Your task to perform on an android device: turn on improve location accuracy Image 0: 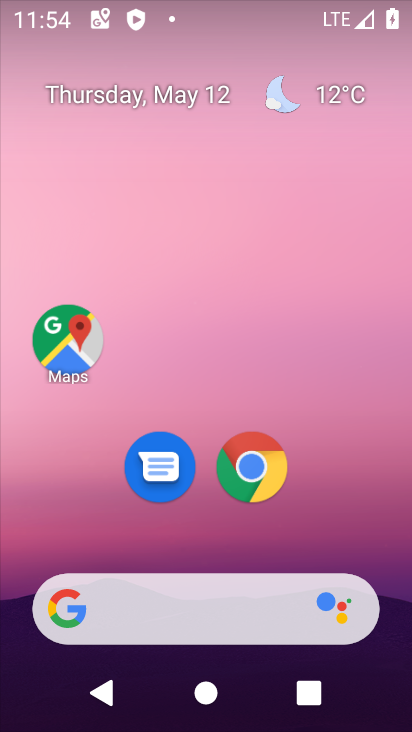
Step 0: drag from (348, 542) to (194, 10)
Your task to perform on an android device: turn on improve location accuracy Image 1: 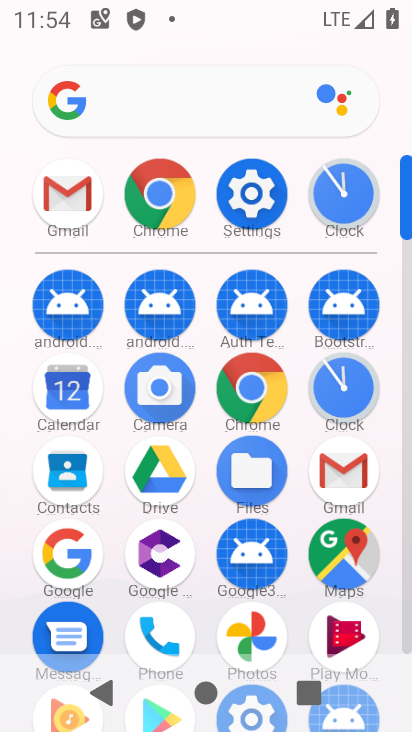
Step 1: drag from (23, 584) to (16, 201)
Your task to perform on an android device: turn on improve location accuracy Image 2: 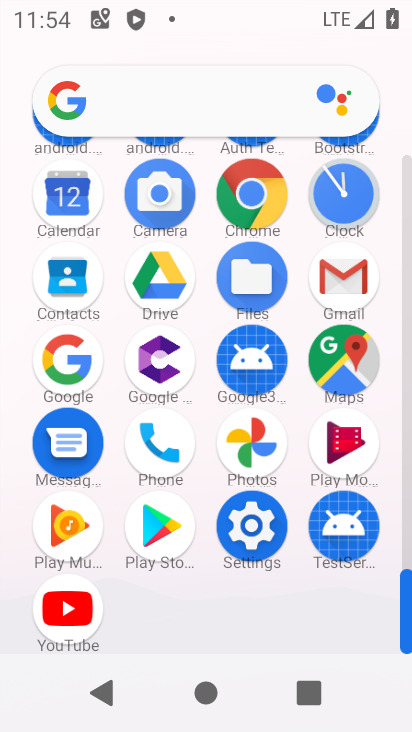
Step 2: click (247, 523)
Your task to perform on an android device: turn on improve location accuracy Image 3: 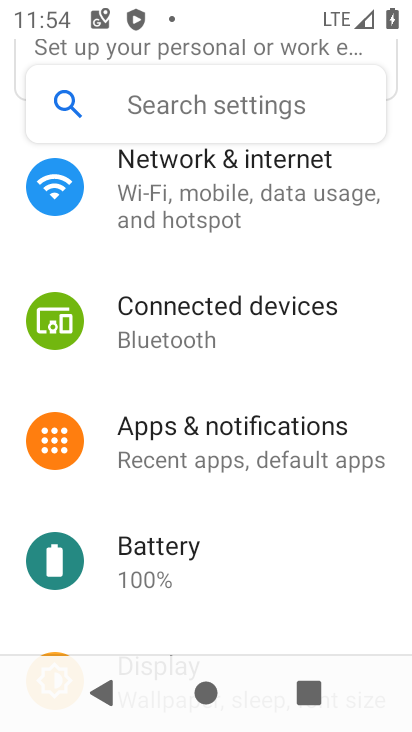
Step 3: drag from (258, 604) to (299, 282)
Your task to perform on an android device: turn on improve location accuracy Image 4: 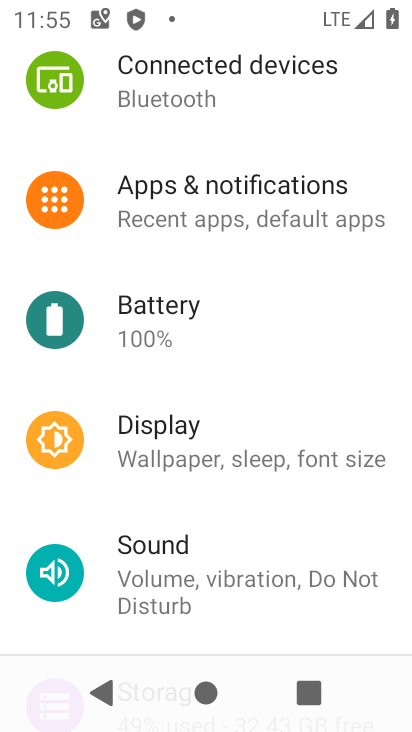
Step 4: drag from (195, 169) to (222, 501)
Your task to perform on an android device: turn on improve location accuracy Image 5: 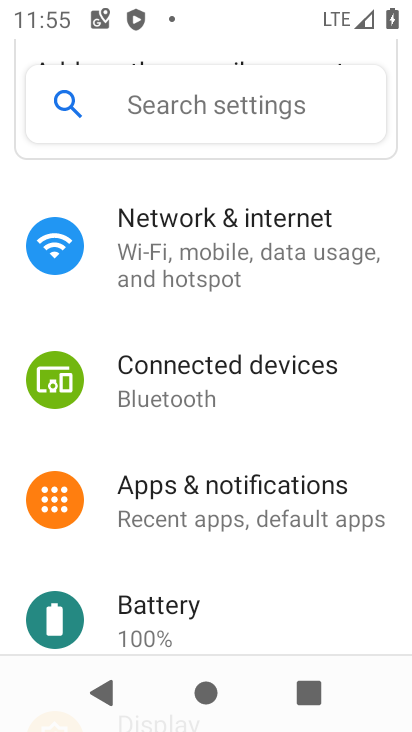
Step 5: drag from (238, 248) to (247, 557)
Your task to perform on an android device: turn on improve location accuracy Image 6: 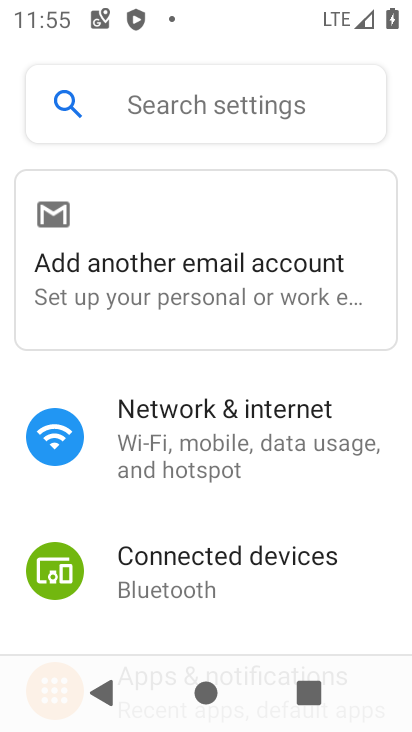
Step 6: drag from (271, 580) to (281, 316)
Your task to perform on an android device: turn on improve location accuracy Image 7: 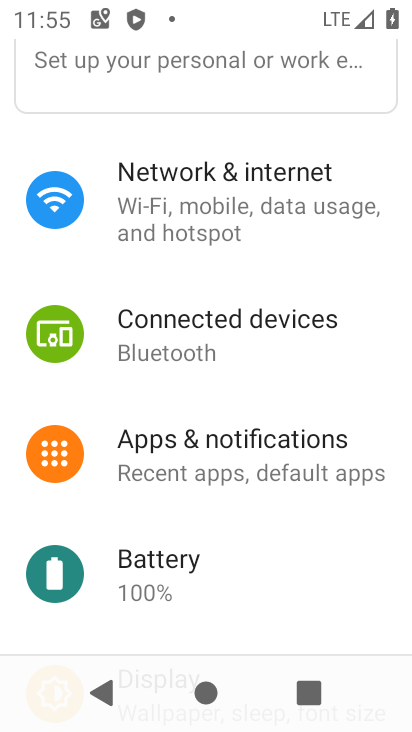
Step 7: drag from (263, 540) to (260, 253)
Your task to perform on an android device: turn on improve location accuracy Image 8: 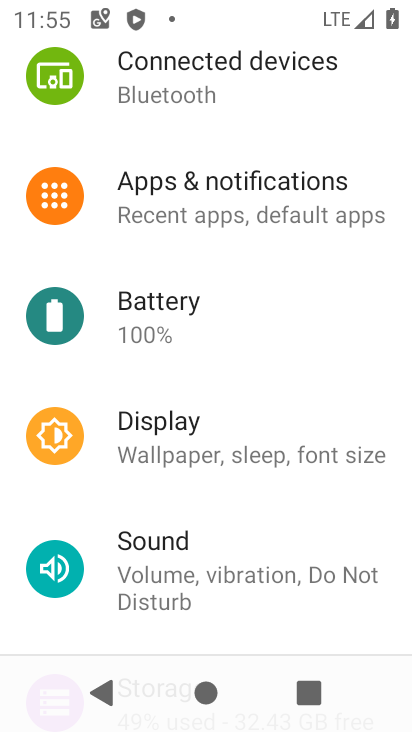
Step 8: drag from (283, 480) to (301, 169)
Your task to perform on an android device: turn on improve location accuracy Image 9: 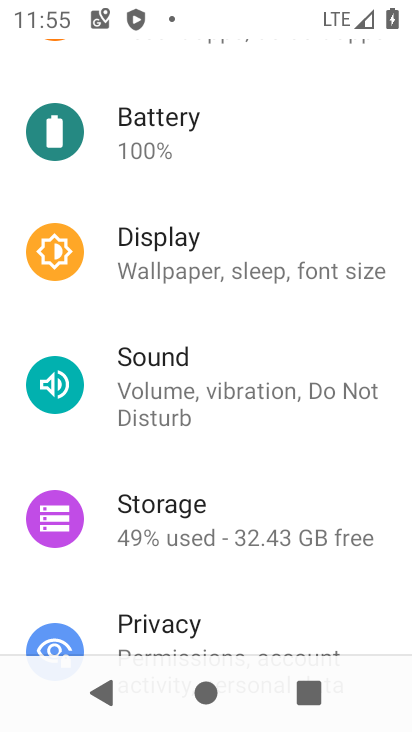
Step 9: drag from (239, 531) to (239, 132)
Your task to perform on an android device: turn on improve location accuracy Image 10: 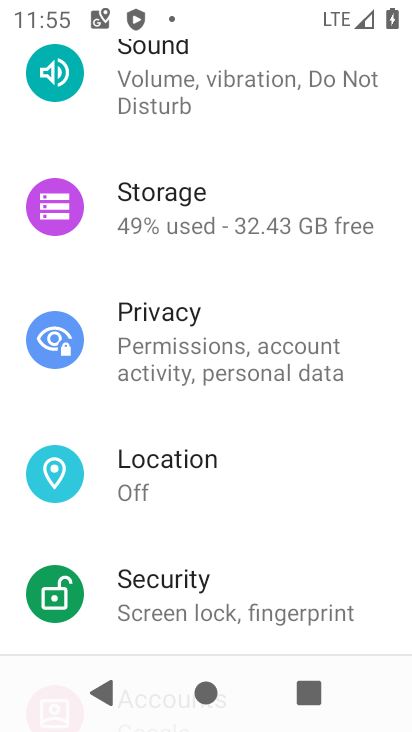
Step 10: click (204, 474)
Your task to perform on an android device: turn on improve location accuracy Image 11: 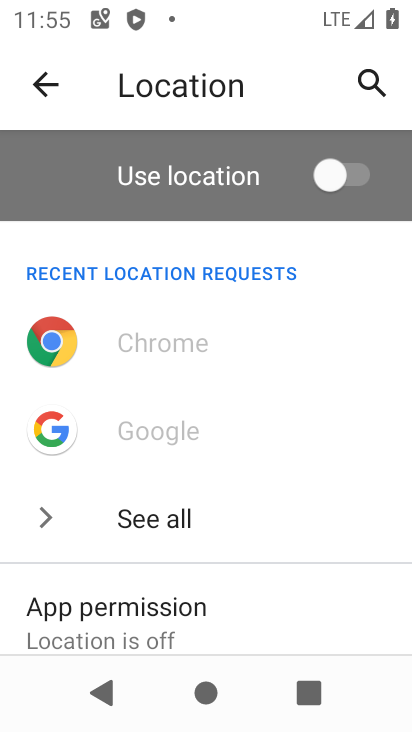
Step 11: click (328, 141)
Your task to perform on an android device: turn on improve location accuracy Image 12: 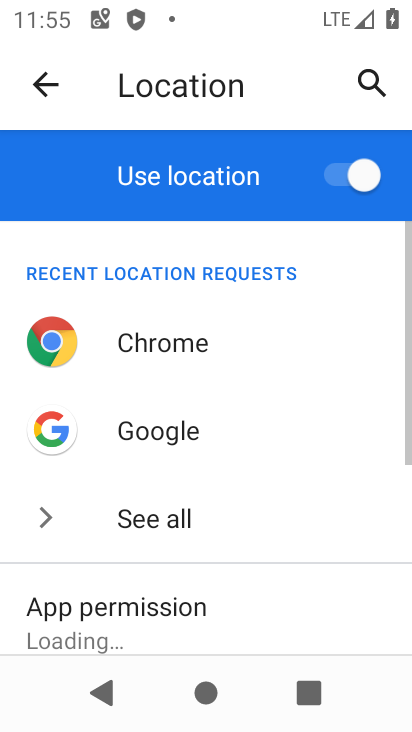
Step 12: click (328, 159)
Your task to perform on an android device: turn on improve location accuracy Image 13: 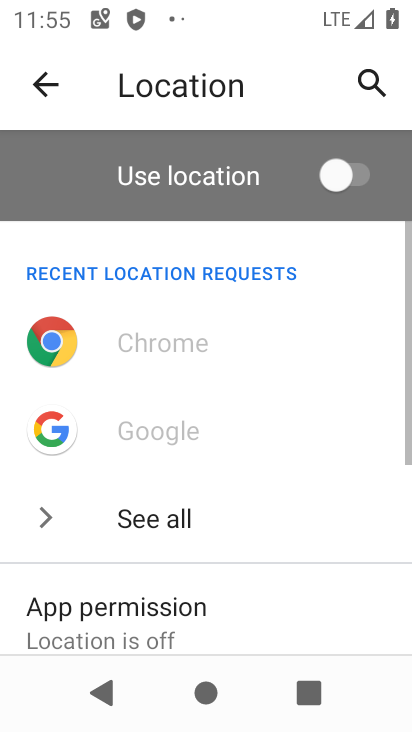
Step 13: drag from (246, 594) to (257, 196)
Your task to perform on an android device: turn on improve location accuracy Image 14: 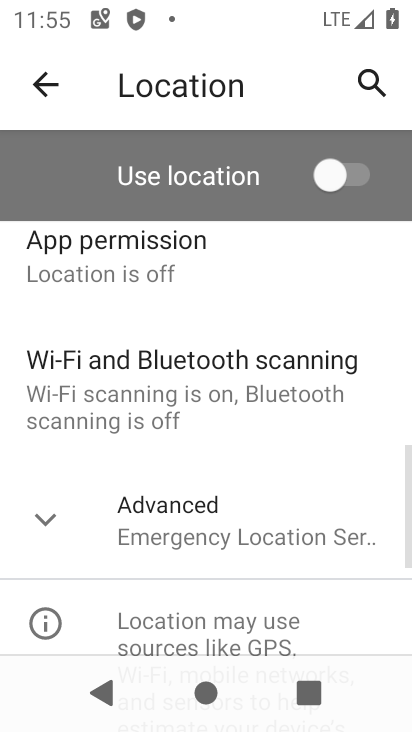
Step 14: click (187, 553)
Your task to perform on an android device: turn on improve location accuracy Image 15: 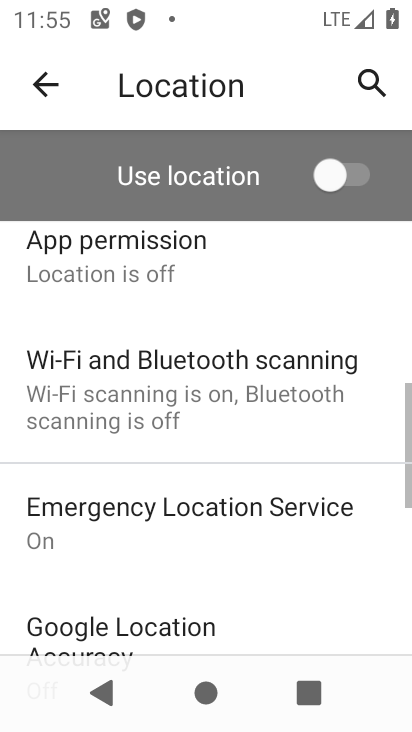
Step 15: drag from (280, 579) to (275, 275)
Your task to perform on an android device: turn on improve location accuracy Image 16: 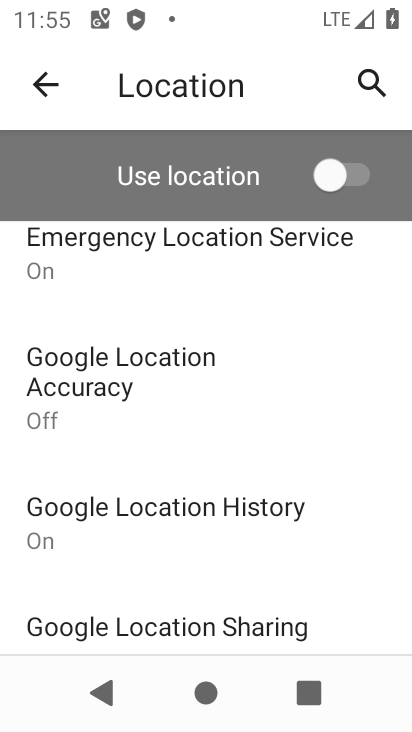
Step 16: click (173, 389)
Your task to perform on an android device: turn on improve location accuracy Image 17: 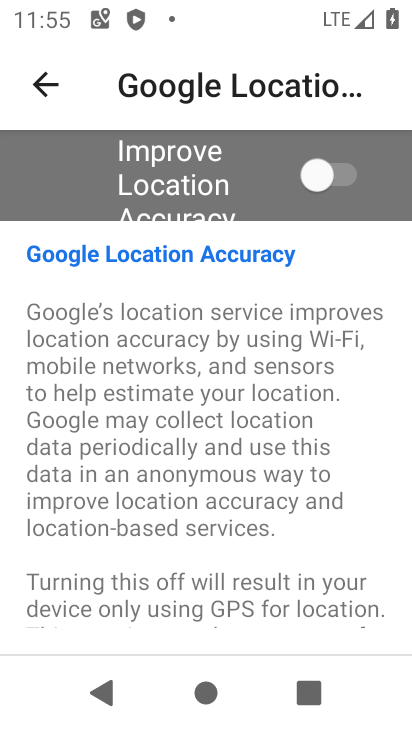
Step 17: click (318, 164)
Your task to perform on an android device: turn on improve location accuracy Image 18: 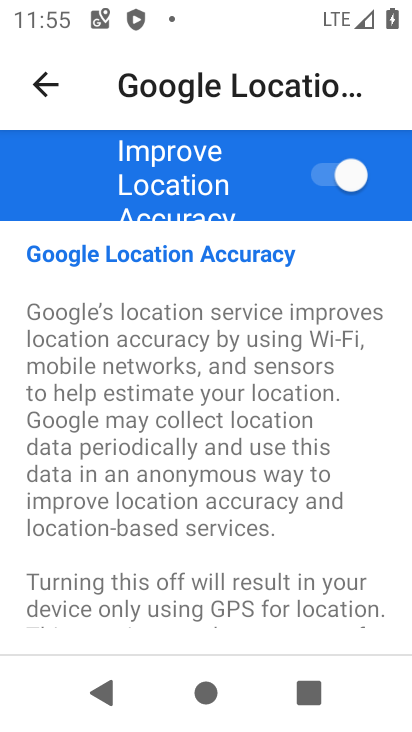
Step 18: task complete